Your task to perform on an android device: Open internet settings Image 0: 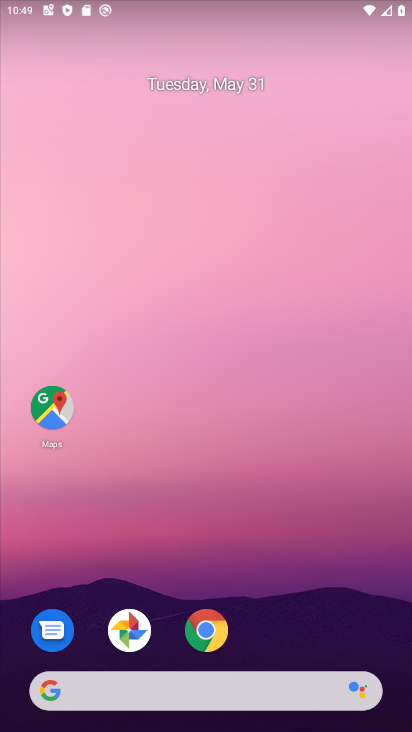
Step 0: drag from (290, 594) to (277, 188)
Your task to perform on an android device: Open internet settings Image 1: 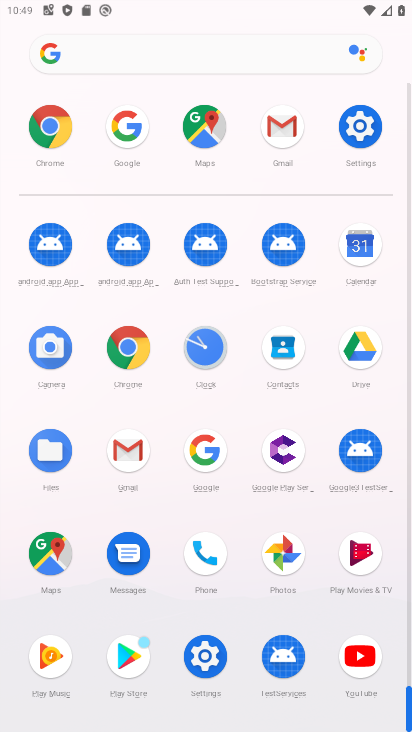
Step 1: click (346, 125)
Your task to perform on an android device: Open internet settings Image 2: 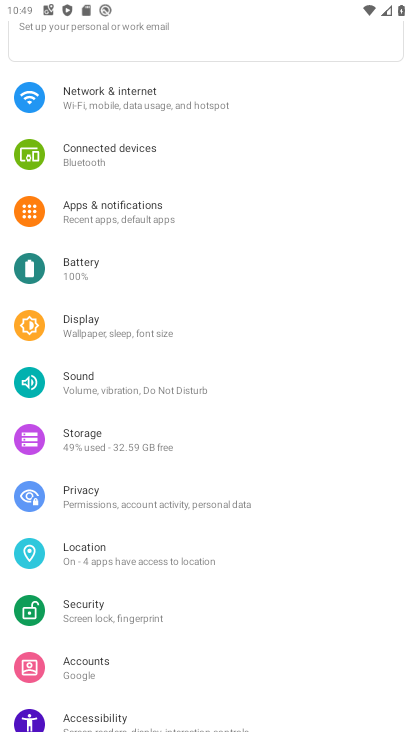
Step 2: click (152, 89)
Your task to perform on an android device: Open internet settings Image 3: 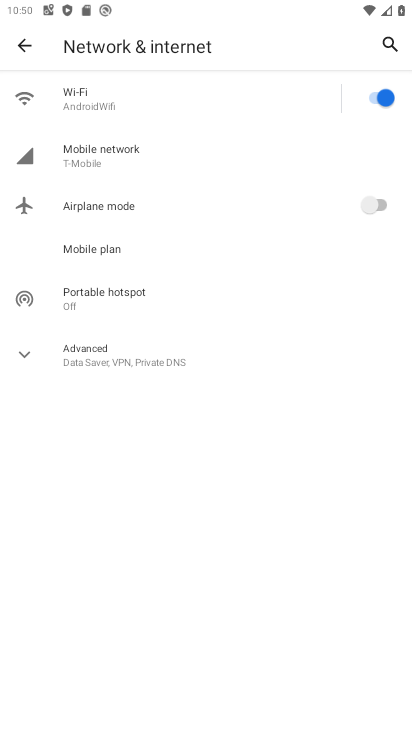
Step 3: task complete